Your task to perform on an android device: clear history in the chrome app Image 0: 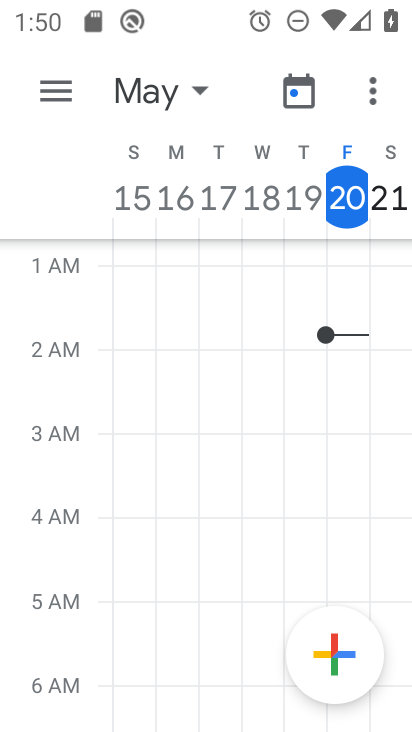
Step 0: press home button
Your task to perform on an android device: clear history in the chrome app Image 1: 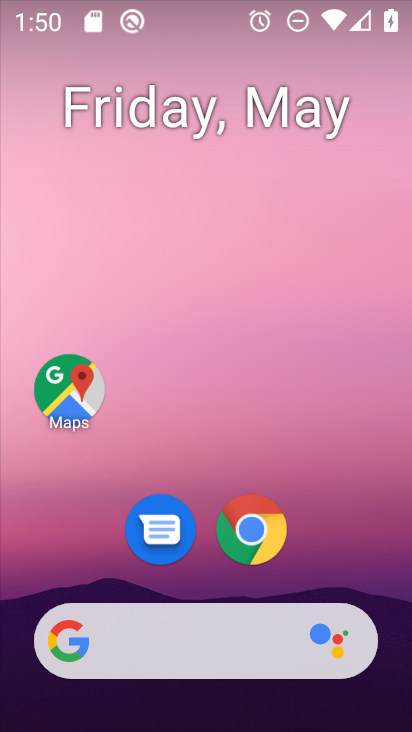
Step 1: click (254, 536)
Your task to perform on an android device: clear history in the chrome app Image 2: 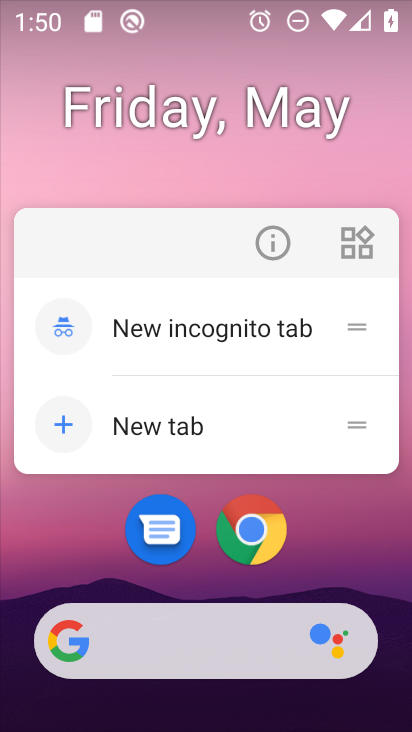
Step 2: click (238, 541)
Your task to perform on an android device: clear history in the chrome app Image 3: 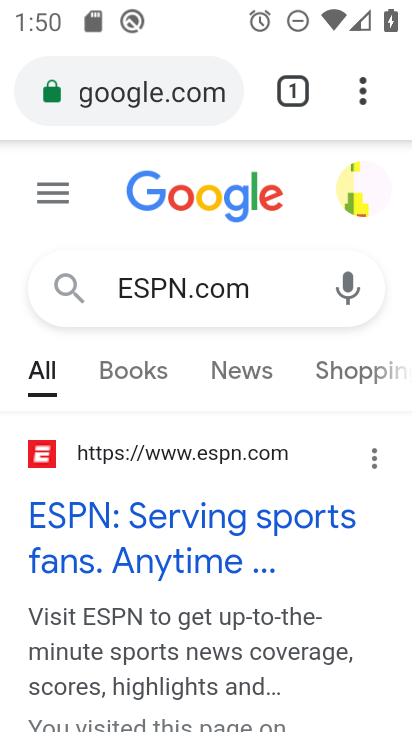
Step 3: click (362, 90)
Your task to perform on an android device: clear history in the chrome app Image 4: 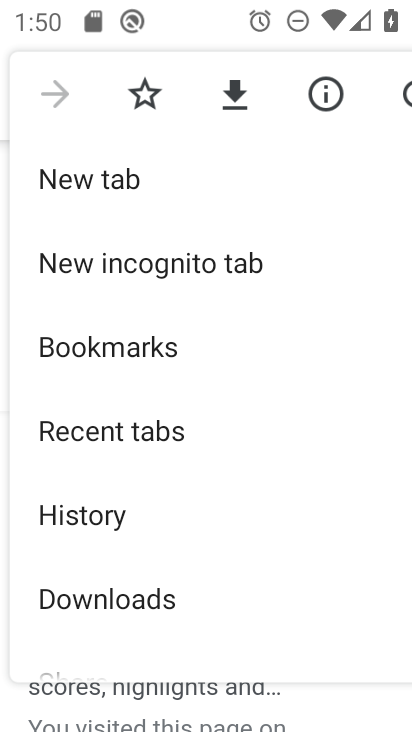
Step 4: drag from (254, 637) to (205, 343)
Your task to perform on an android device: clear history in the chrome app Image 5: 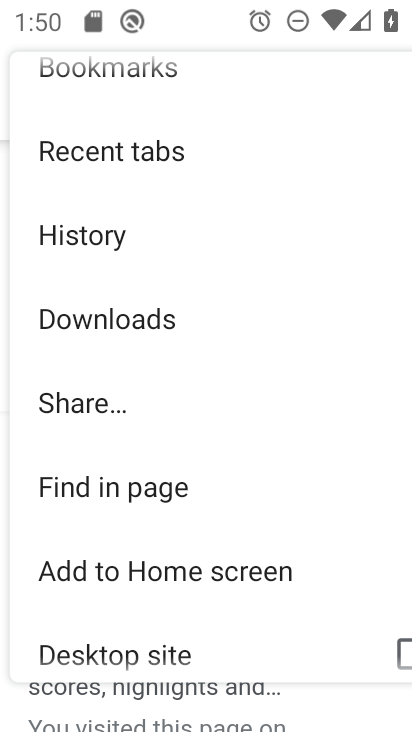
Step 5: click (82, 242)
Your task to perform on an android device: clear history in the chrome app Image 6: 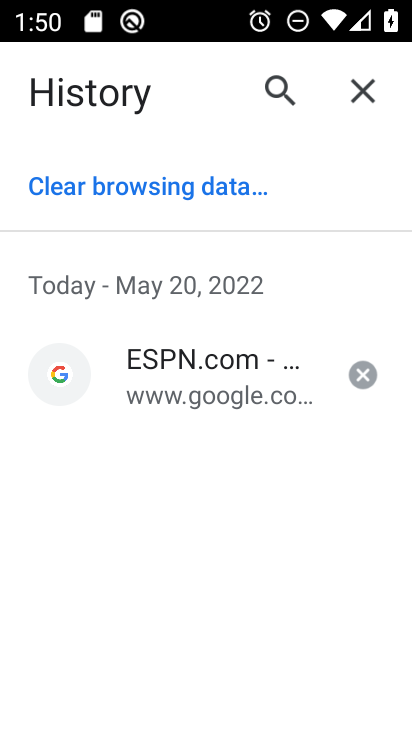
Step 6: click (135, 183)
Your task to perform on an android device: clear history in the chrome app Image 7: 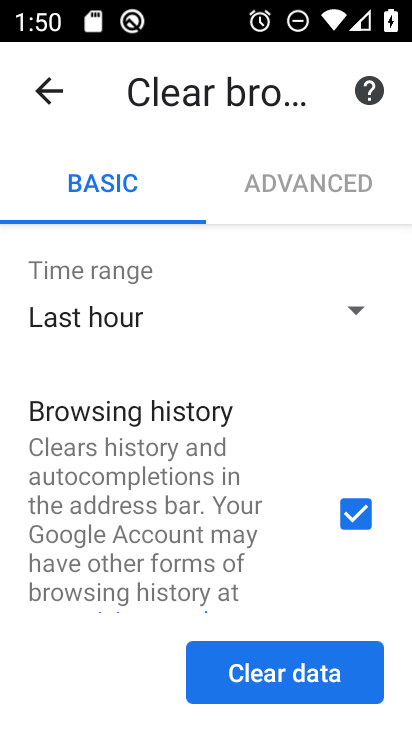
Step 7: click (230, 679)
Your task to perform on an android device: clear history in the chrome app Image 8: 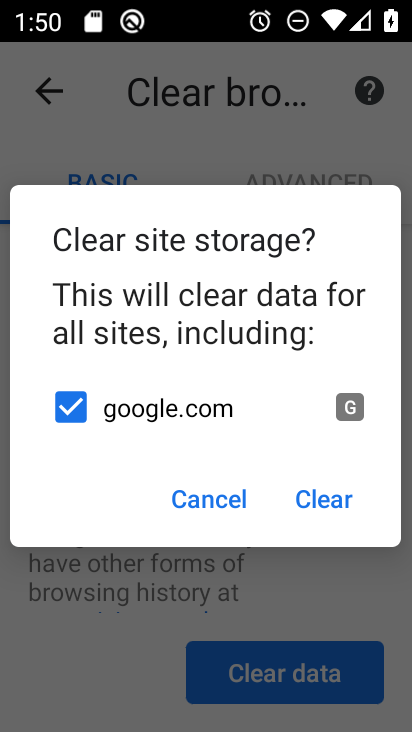
Step 8: click (313, 506)
Your task to perform on an android device: clear history in the chrome app Image 9: 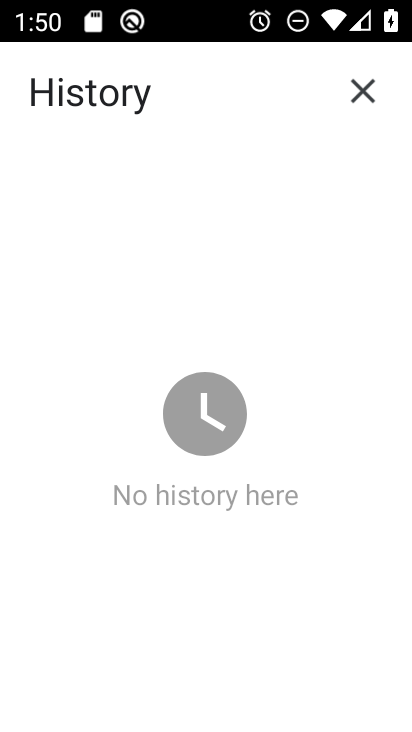
Step 9: task complete